Your task to perform on an android device: Show me productivity apps on the Play Store Image 0: 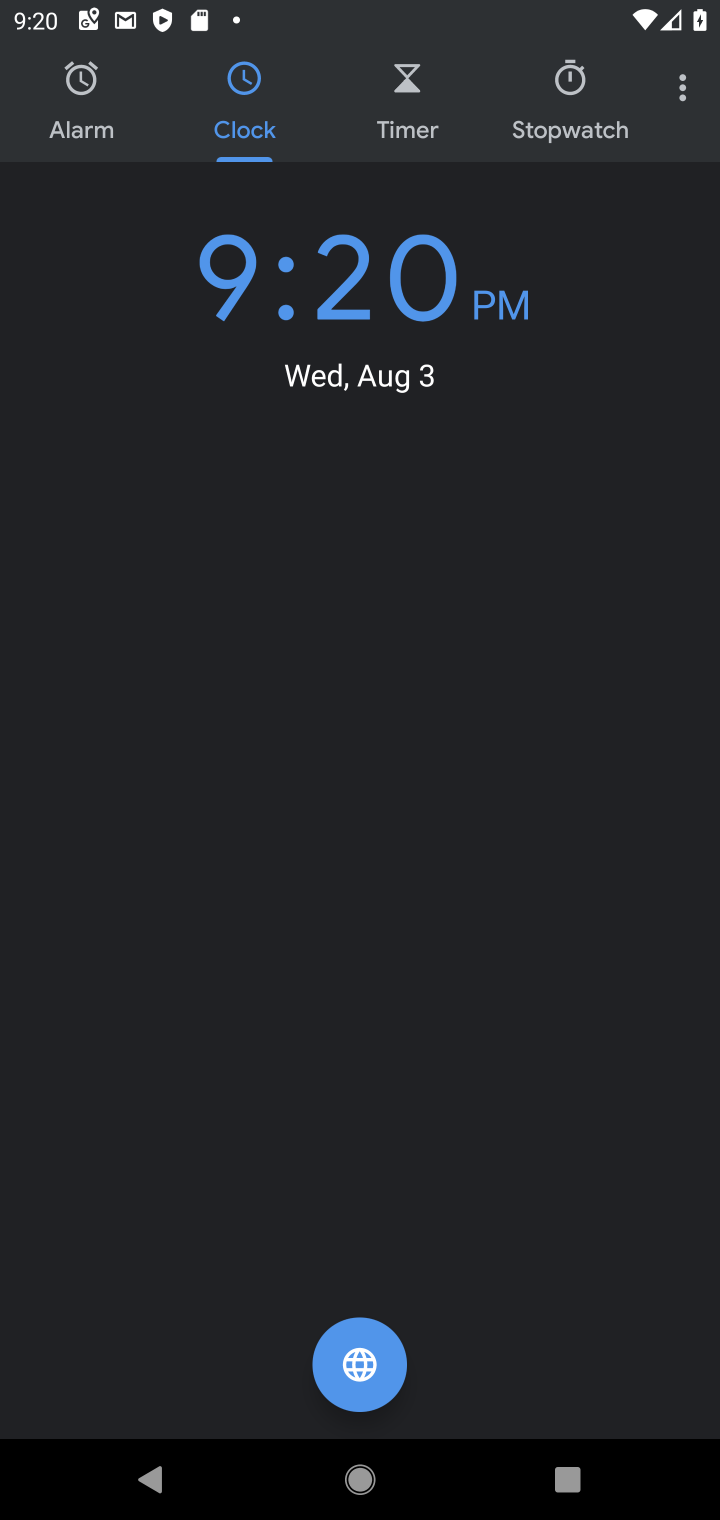
Step 0: press back button
Your task to perform on an android device: Show me productivity apps on the Play Store Image 1: 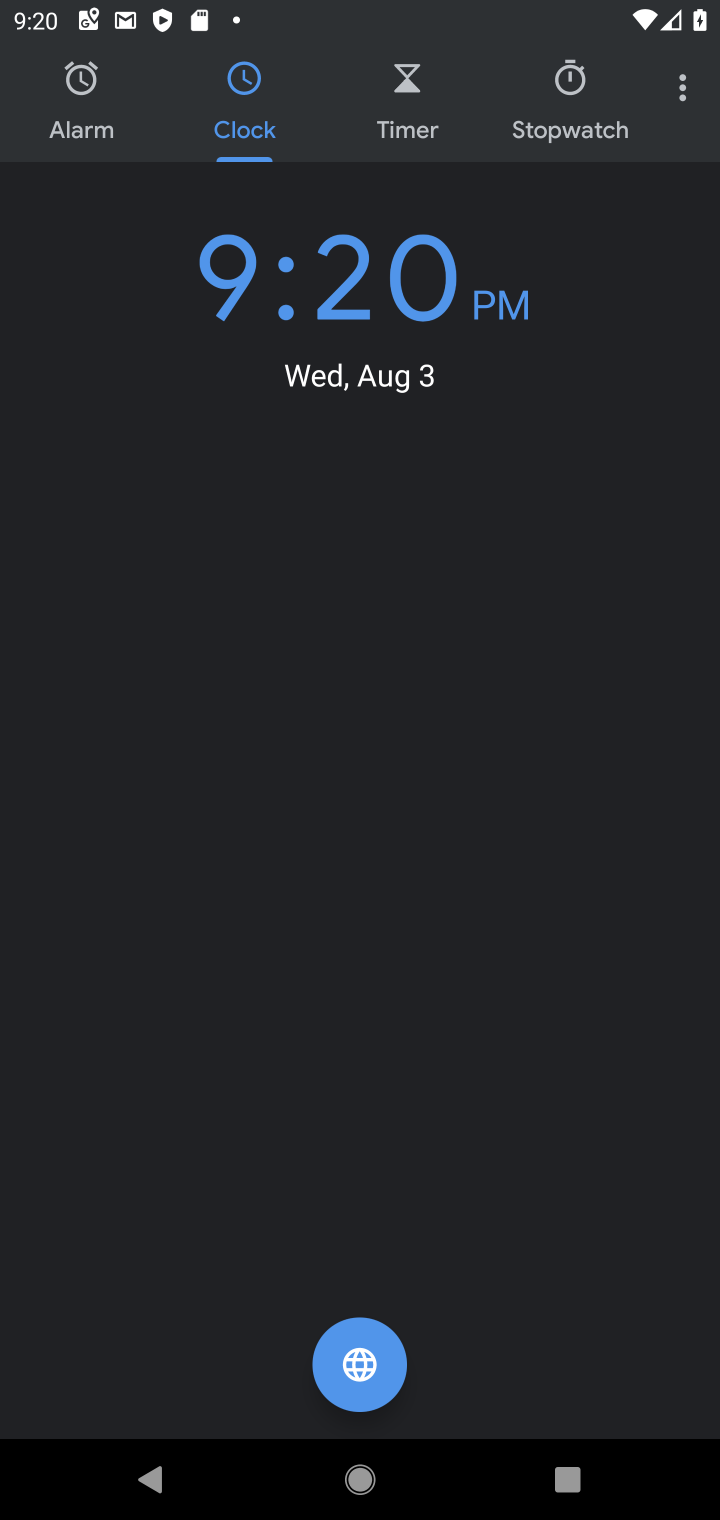
Step 1: press back button
Your task to perform on an android device: Show me productivity apps on the Play Store Image 2: 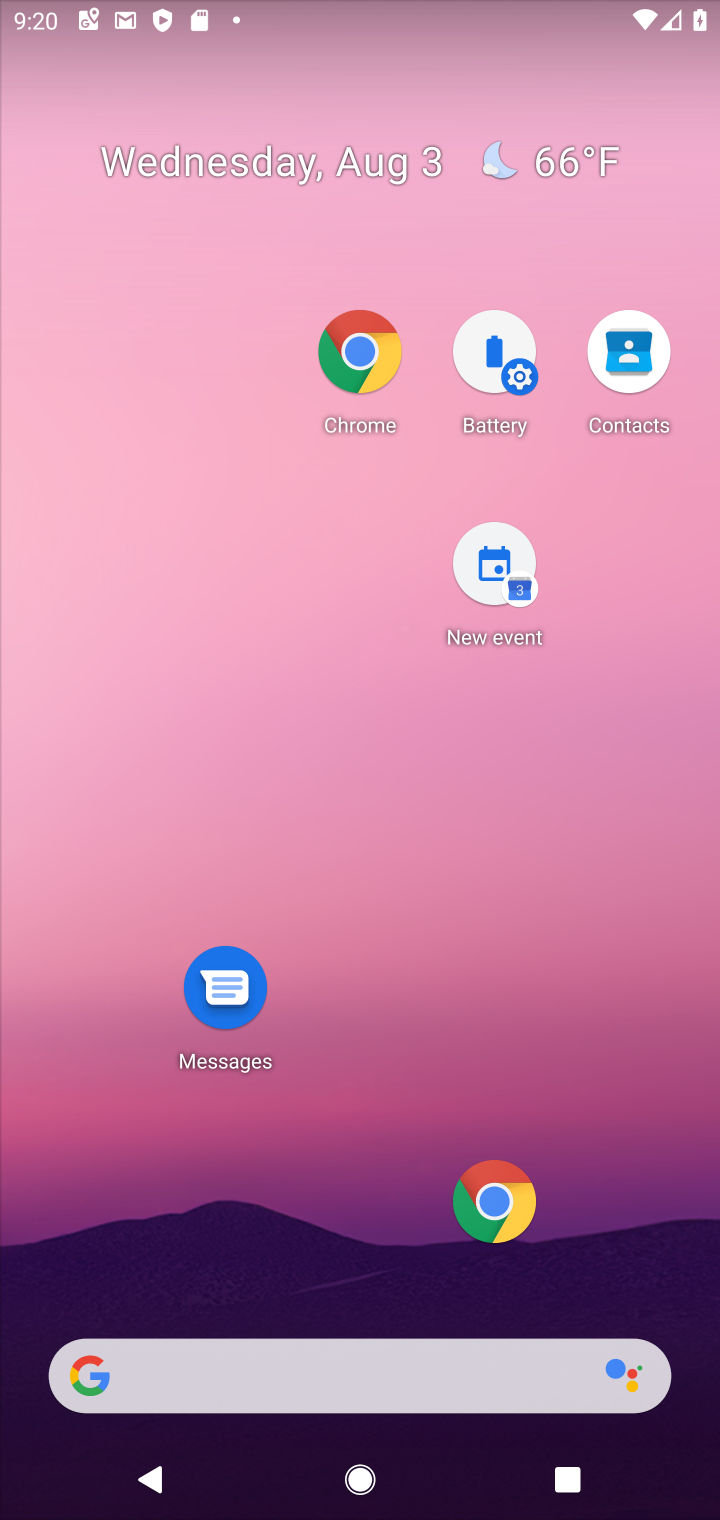
Step 2: press back button
Your task to perform on an android device: Show me productivity apps on the Play Store Image 3: 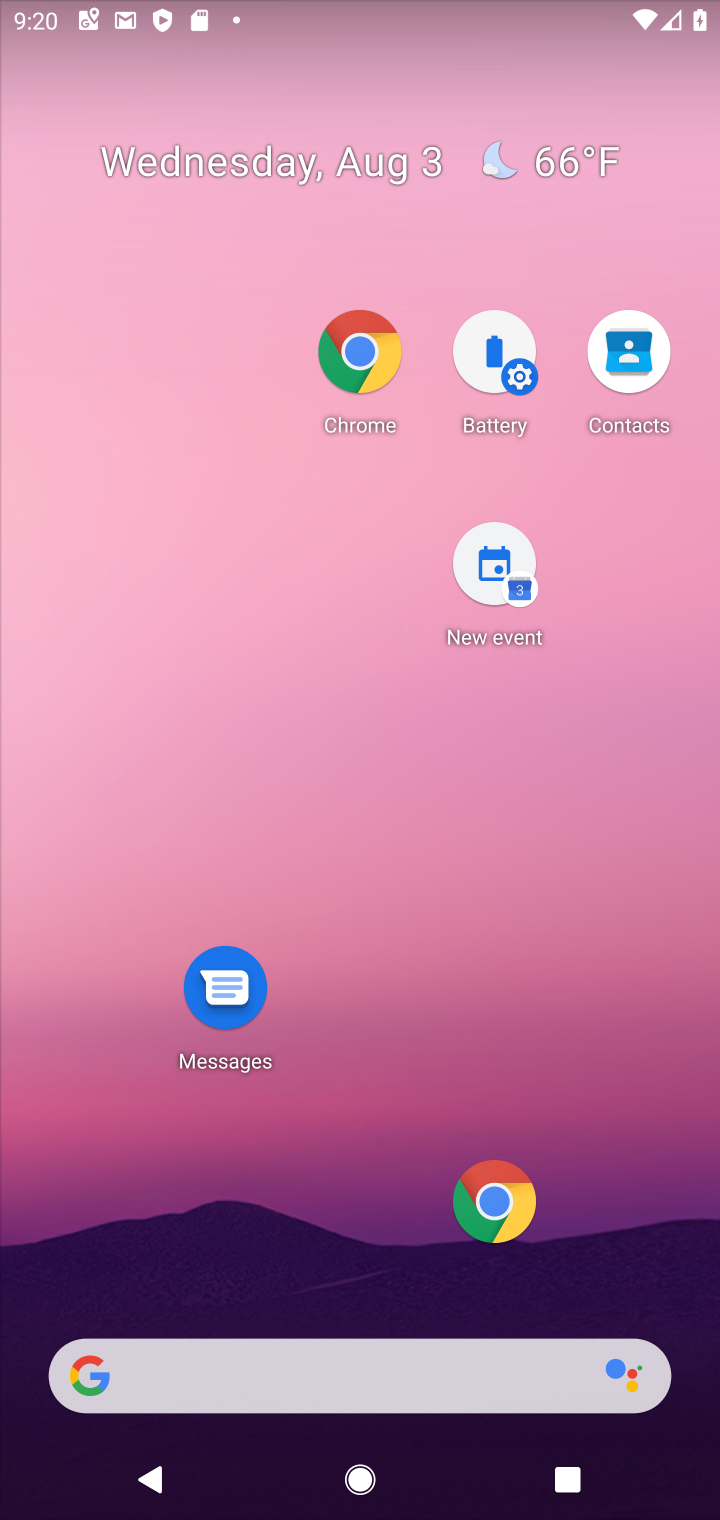
Step 3: drag from (358, 1161) to (216, 74)
Your task to perform on an android device: Show me productivity apps on the Play Store Image 4: 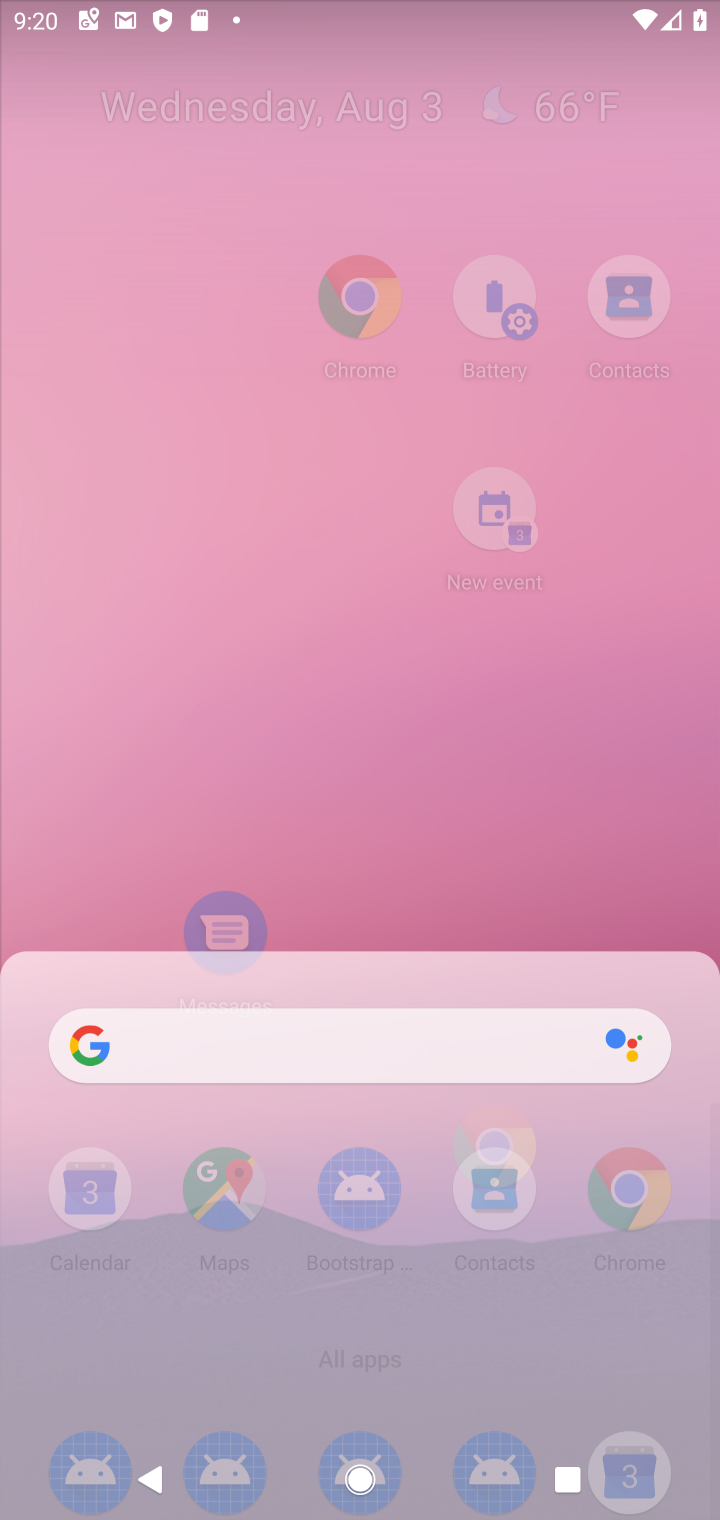
Step 4: drag from (323, 894) to (274, 184)
Your task to perform on an android device: Show me productivity apps on the Play Store Image 5: 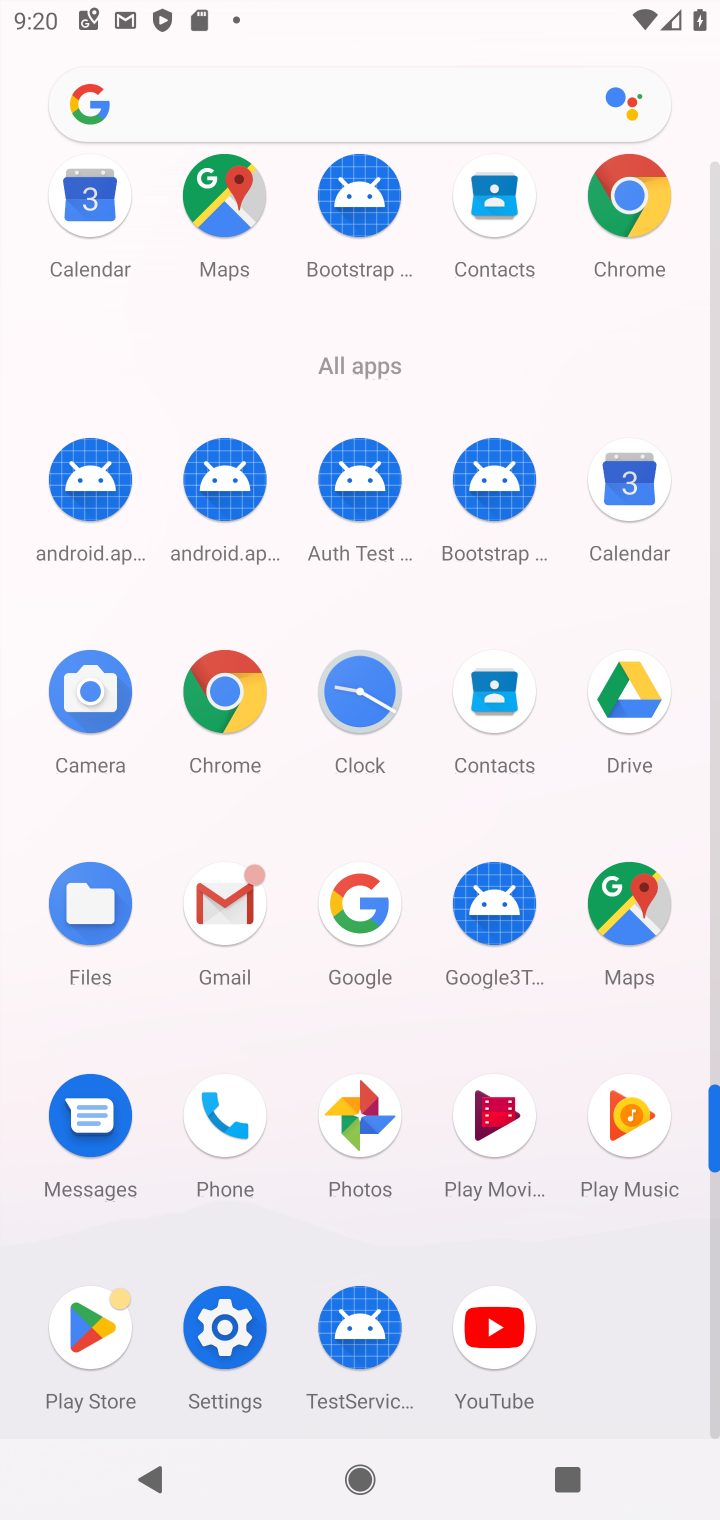
Step 5: click (88, 1333)
Your task to perform on an android device: Show me productivity apps on the Play Store Image 6: 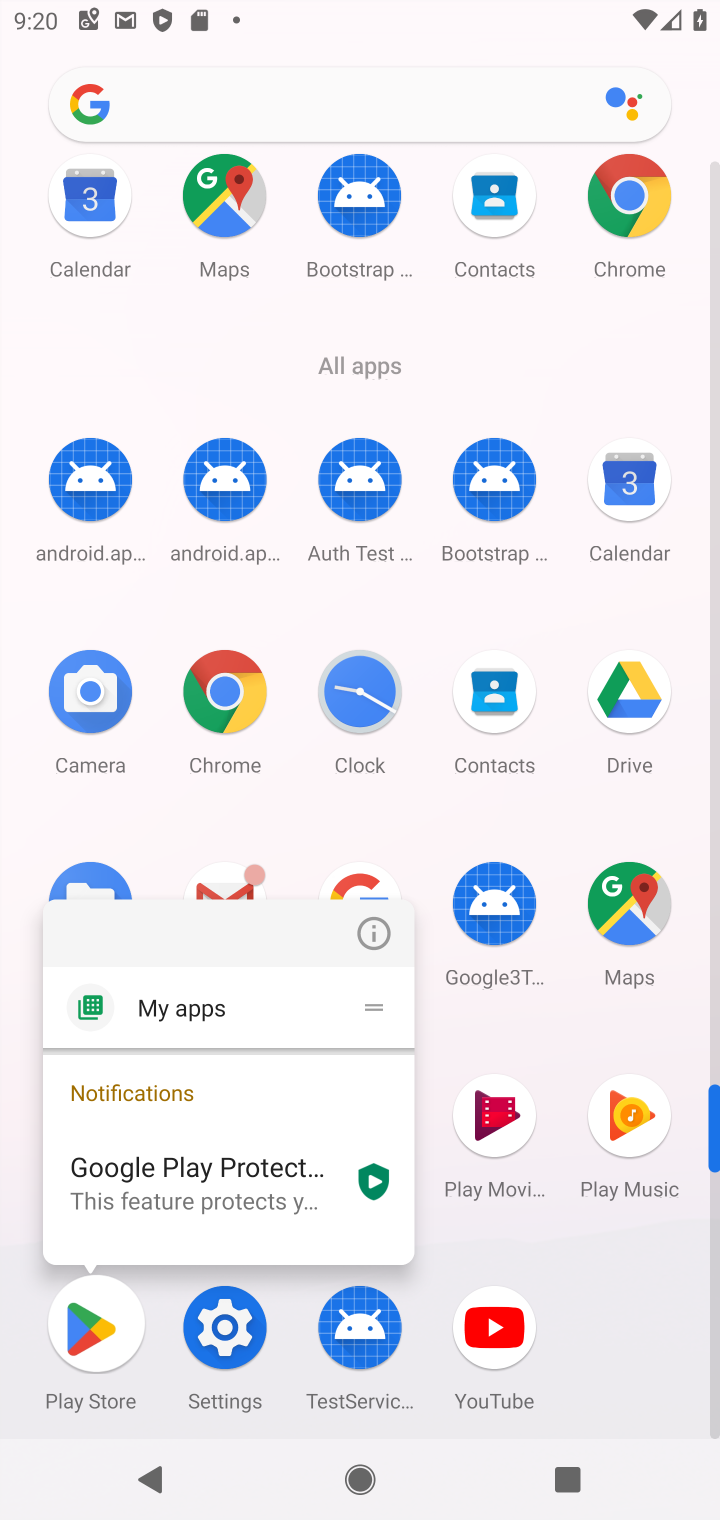
Step 6: click (99, 1326)
Your task to perform on an android device: Show me productivity apps on the Play Store Image 7: 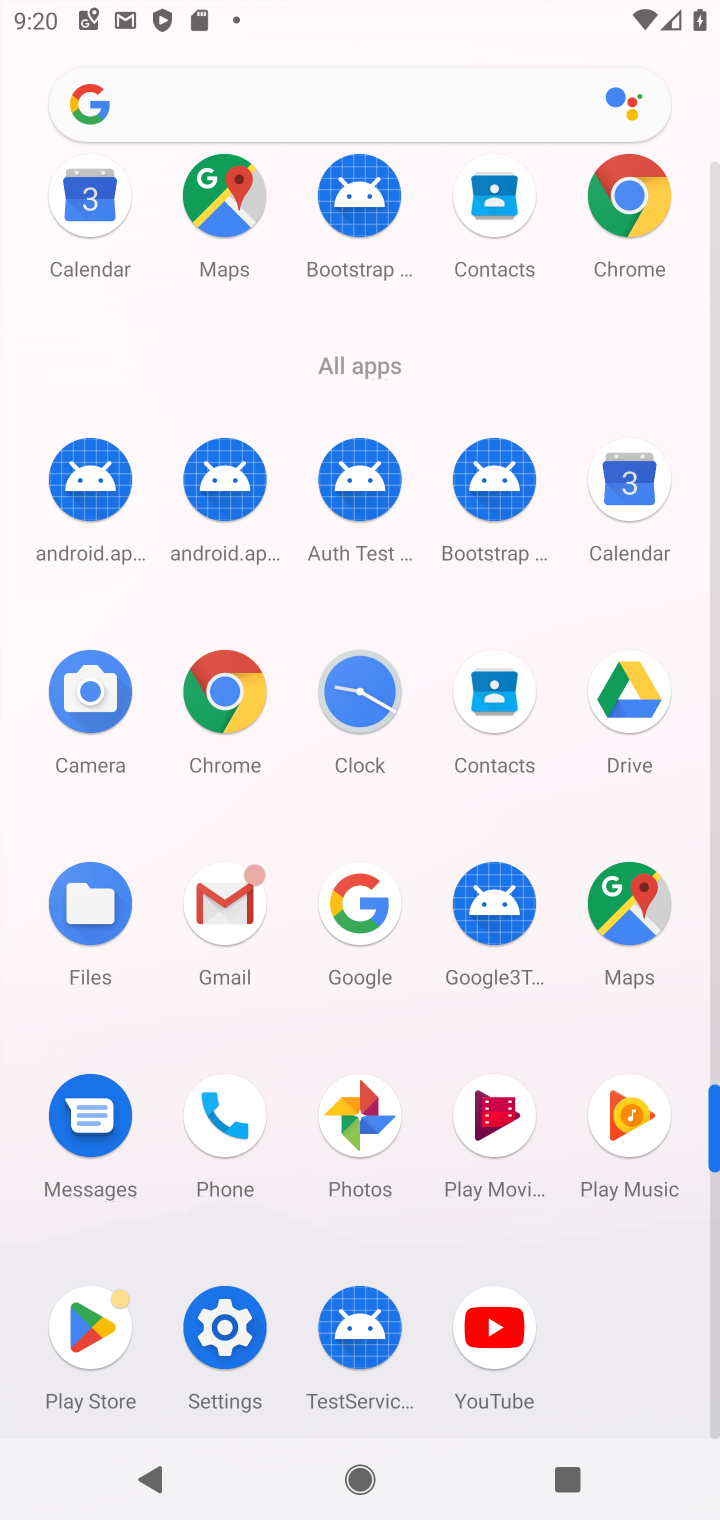
Step 7: click (93, 1332)
Your task to perform on an android device: Show me productivity apps on the Play Store Image 8: 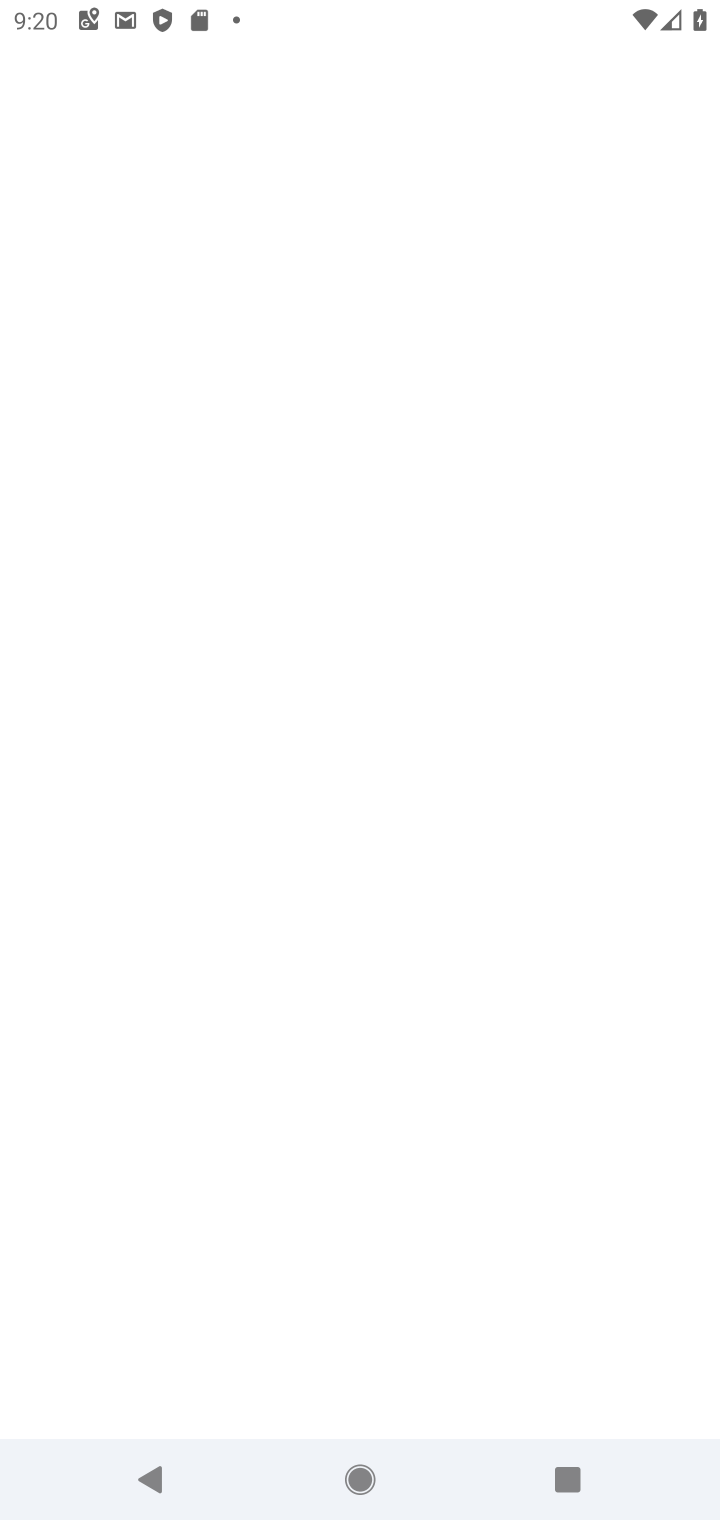
Step 8: click (93, 1317)
Your task to perform on an android device: Show me productivity apps on the Play Store Image 9: 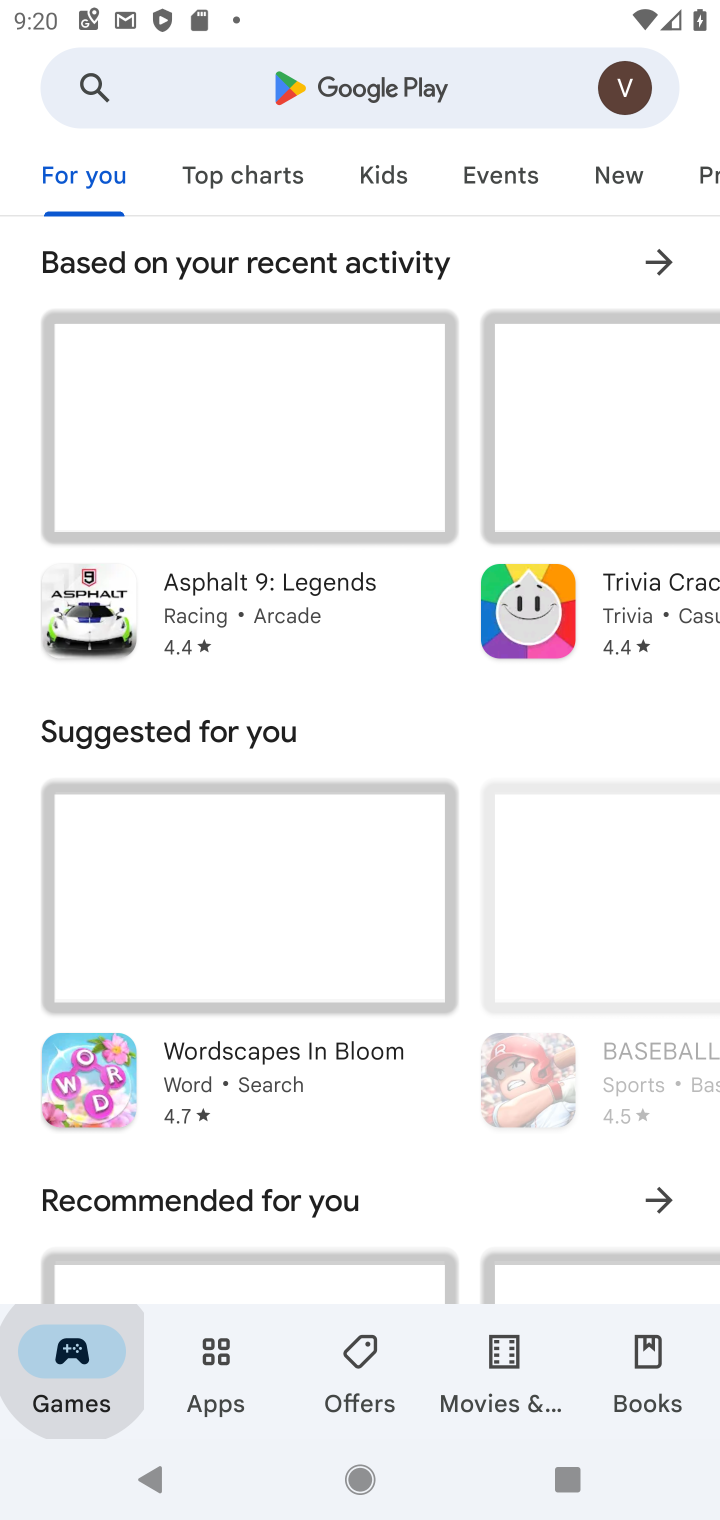
Step 9: click (340, 94)
Your task to perform on an android device: Show me productivity apps on the Play Store Image 10: 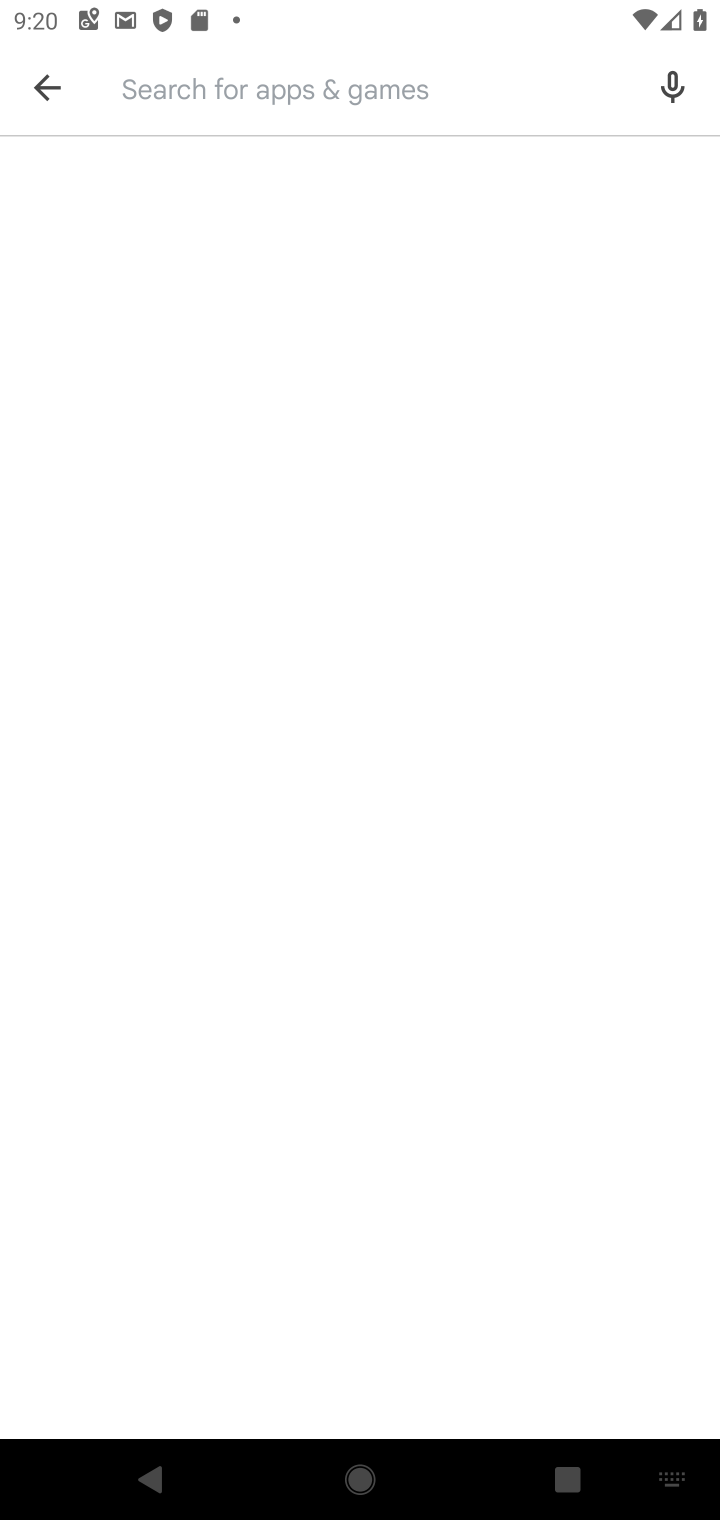
Step 10: type "productivity apps"
Your task to perform on an android device: Show me productivity apps on the Play Store Image 11: 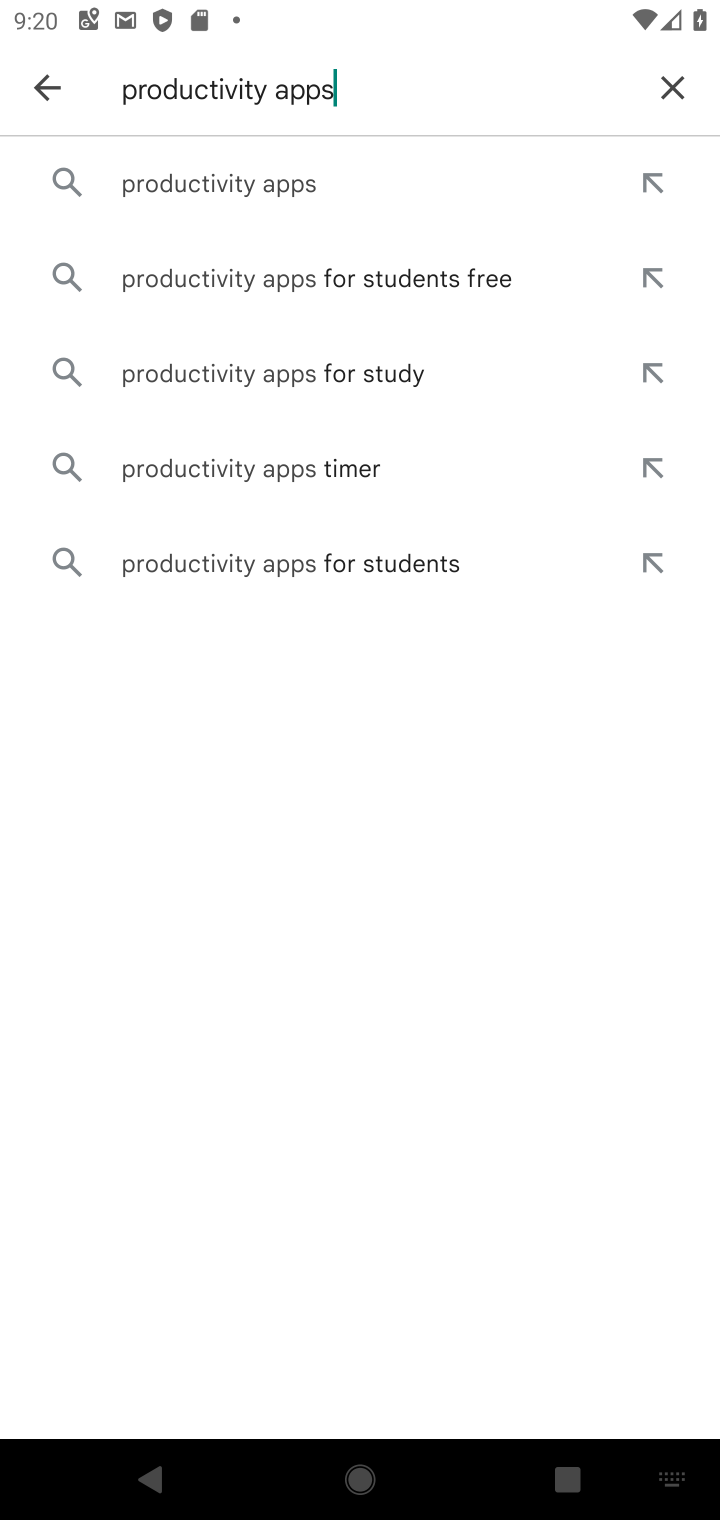
Step 11: click (236, 178)
Your task to perform on an android device: Show me productivity apps on the Play Store Image 12: 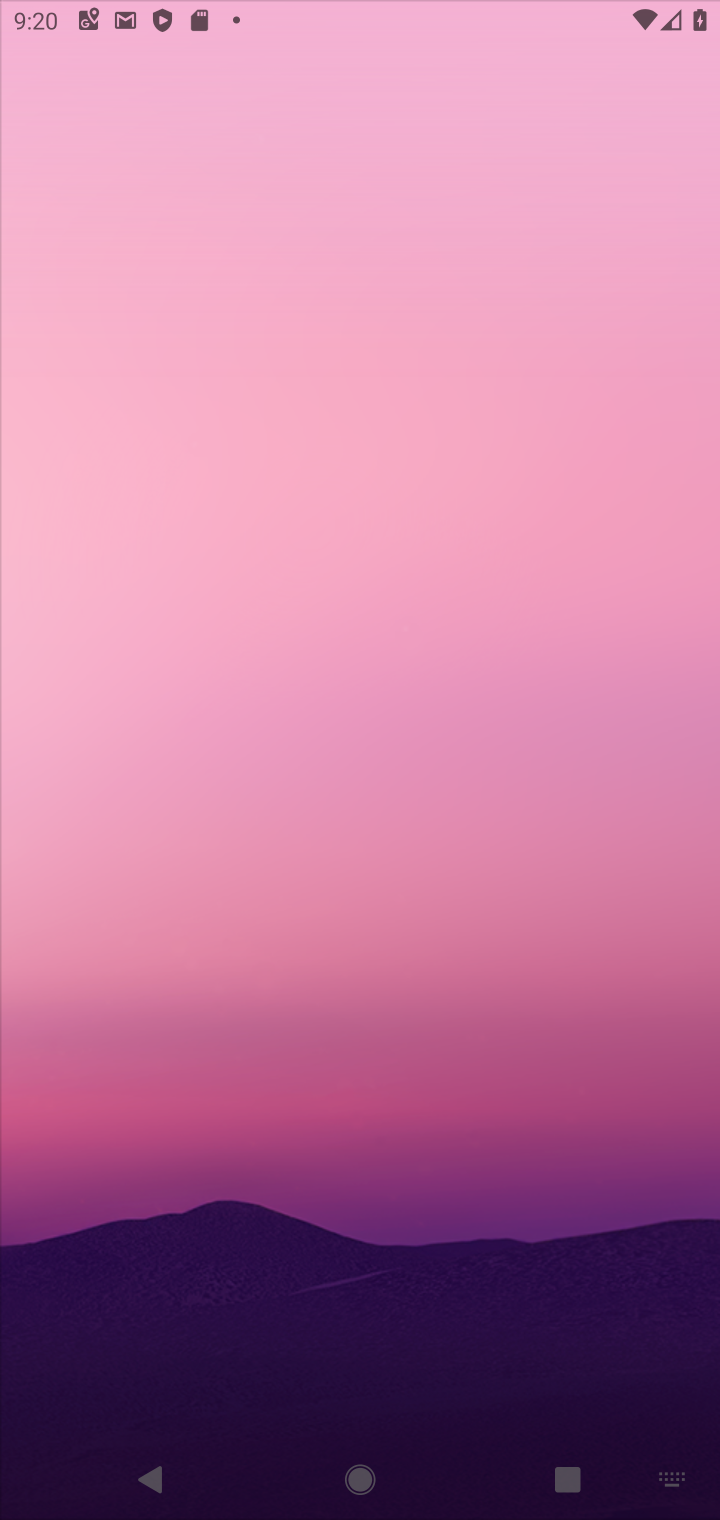
Step 12: click (264, 170)
Your task to perform on an android device: Show me productivity apps on the Play Store Image 13: 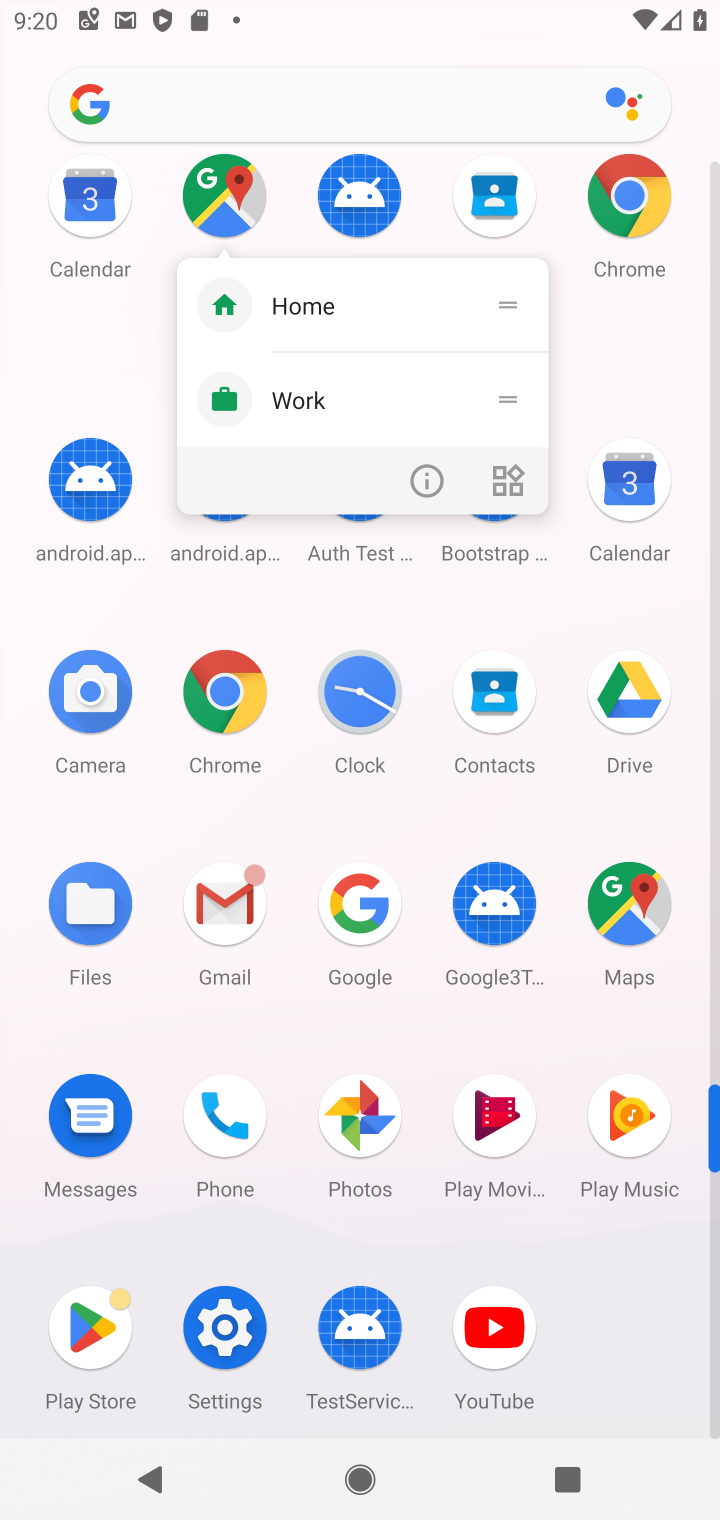
Step 13: task complete